Your task to perform on an android device: toggle pop-ups in chrome Image 0: 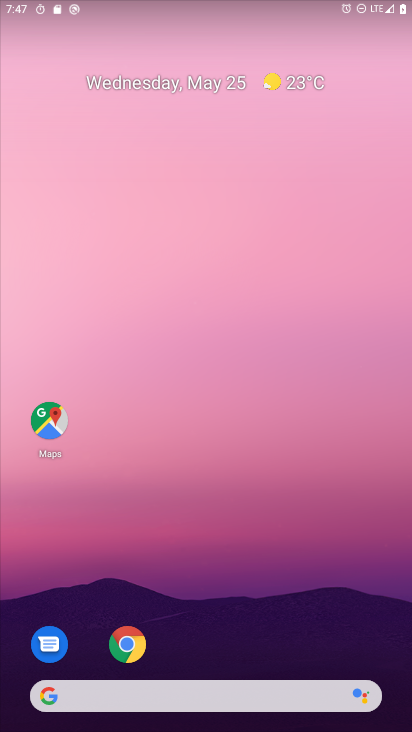
Step 0: drag from (360, 648) to (275, 12)
Your task to perform on an android device: toggle pop-ups in chrome Image 1: 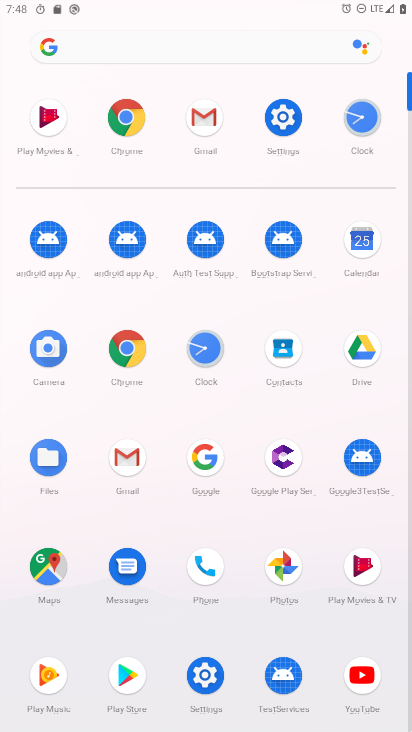
Step 1: click (126, 357)
Your task to perform on an android device: toggle pop-ups in chrome Image 2: 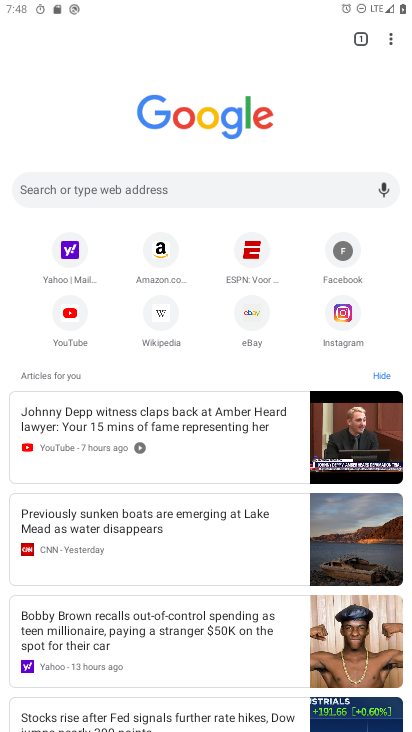
Step 2: click (388, 37)
Your task to perform on an android device: toggle pop-ups in chrome Image 3: 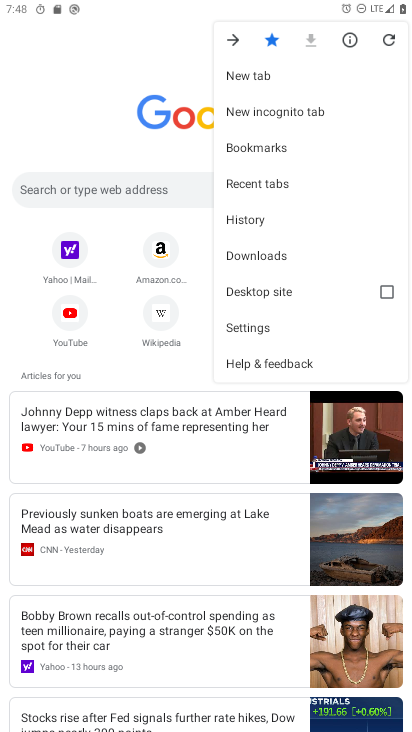
Step 3: click (270, 332)
Your task to perform on an android device: toggle pop-ups in chrome Image 4: 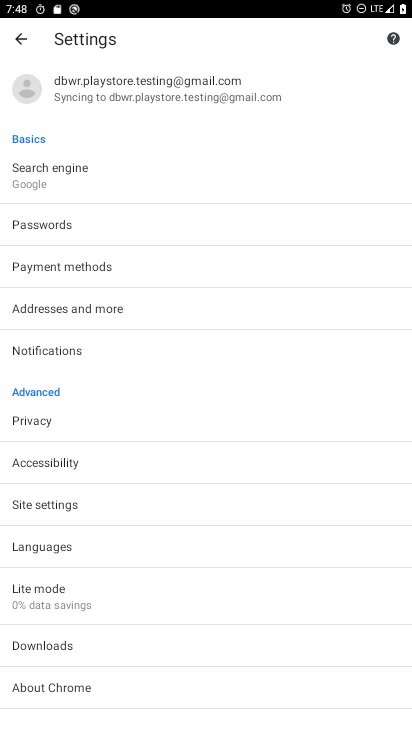
Step 4: click (89, 505)
Your task to perform on an android device: toggle pop-ups in chrome Image 5: 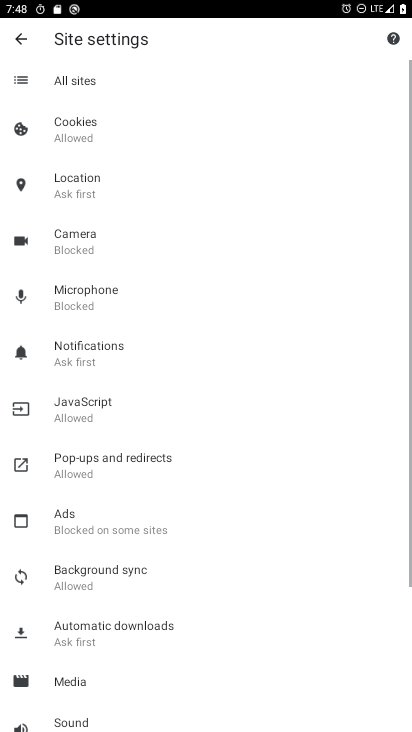
Step 5: click (113, 471)
Your task to perform on an android device: toggle pop-ups in chrome Image 6: 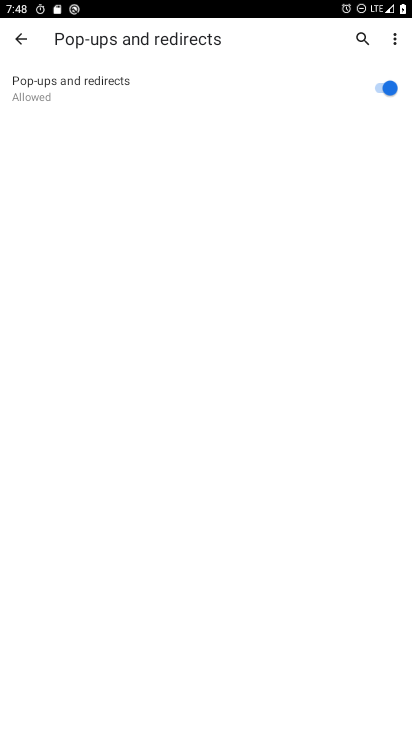
Step 6: click (385, 91)
Your task to perform on an android device: toggle pop-ups in chrome Image 7: 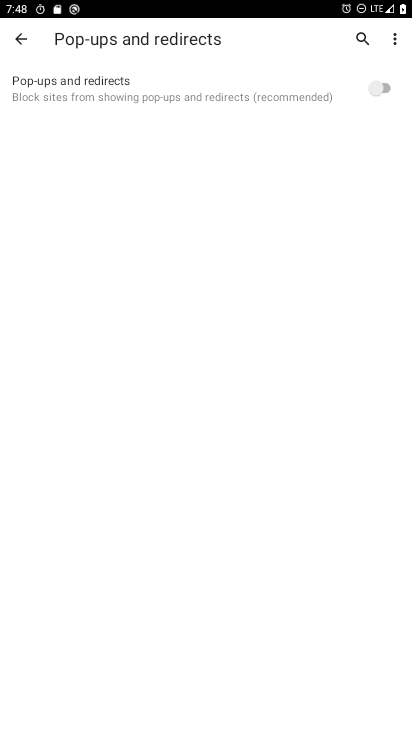
Step 7: task complete